Your task to perform on an android device: clear history in the chrome app Image 0: 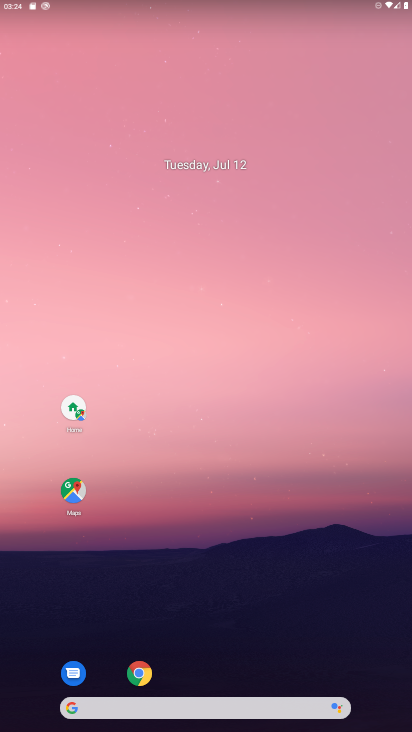
Step 0: drag from (201, 563) to (202, 320)
Your task to perform on an android device: clear history in the chrome app Image 1: 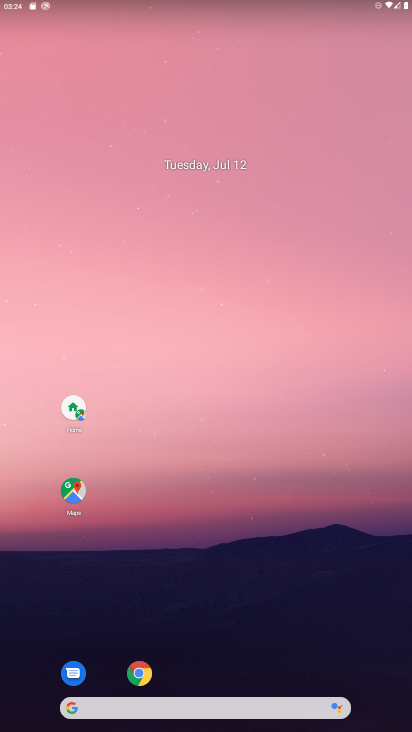
Step 1: drag from (218, 613) to (222, 125)
Your task to perform on an android device: clear history in the chrome app Image 2: 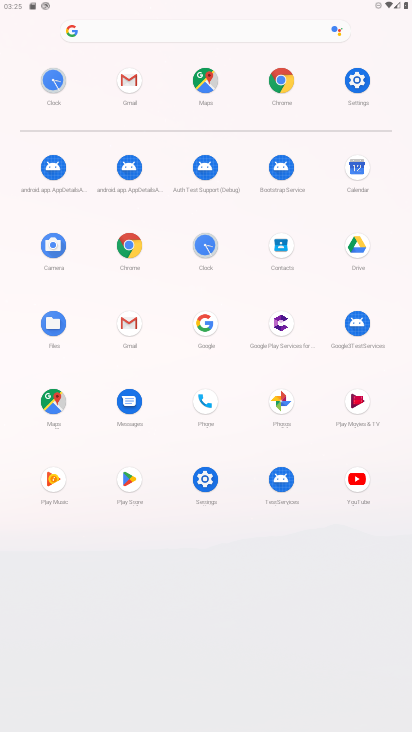
Step 2: click (290, 78)
Your task to perform on an android device: clear history in the chrome app Image 3: 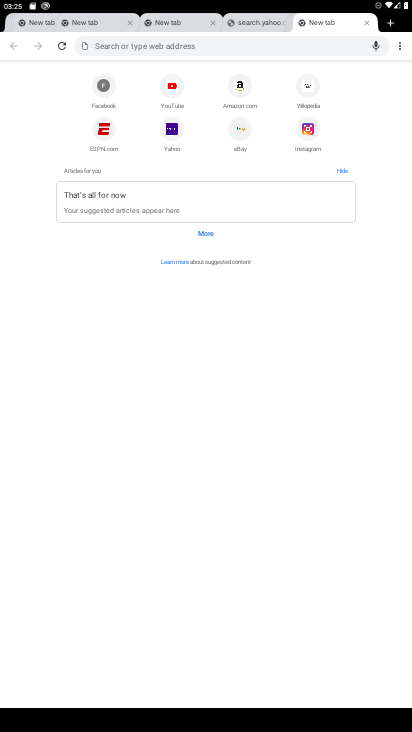
Step 3: click (408, 44)
Your task to perform on an android device: clear history in the chrome app Image 4: 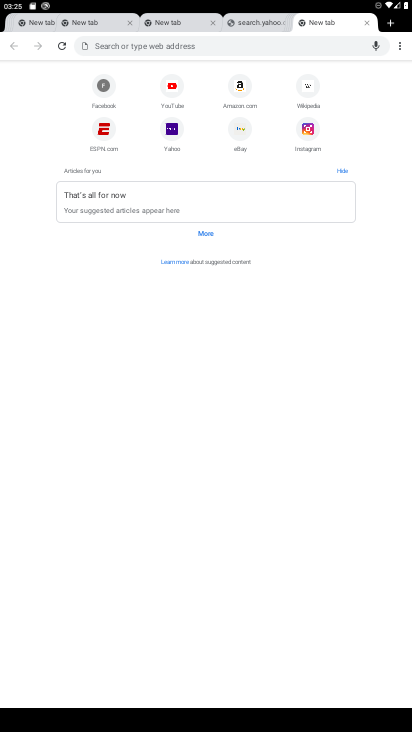
Step 4: click (408, 44)
Your task to perform on an android device: clear history in the chrome app Image 5: 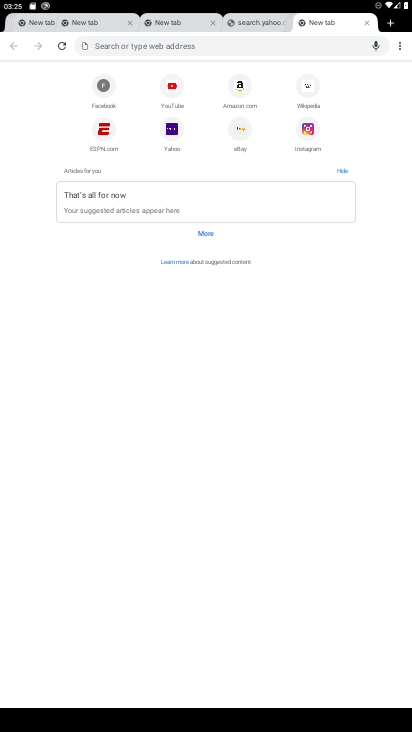
Step 5: click (399, 50)
Your task to perform on an android device: clear history in the chrome app Image 6: 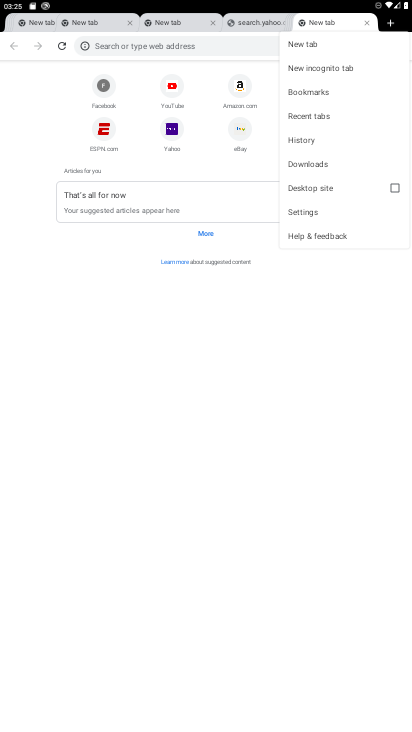
Step 6: click (327, 209)
Your task to perform on an android device: clear history in the chrome app Image 7: 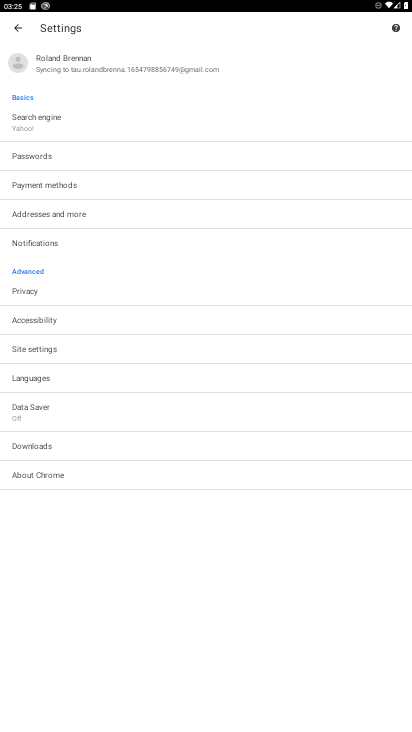
Step 7: click (10, 14)
Your task to perform on an android device: clear history in the chrome app Image 8: 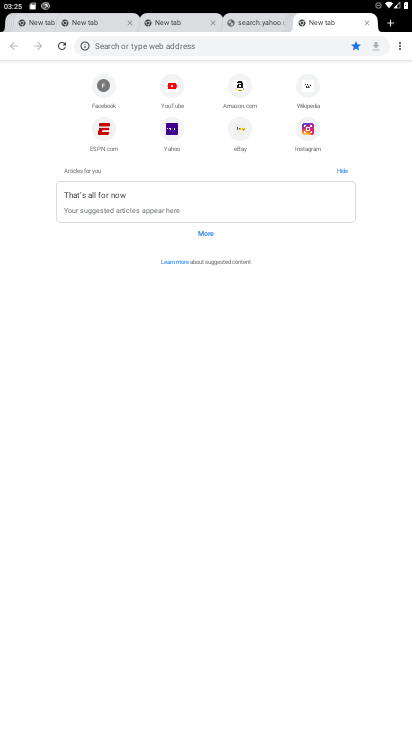
Step 8: click (395, 40)
Your task to perform on an android device: clear history in the chrome app Image 9: 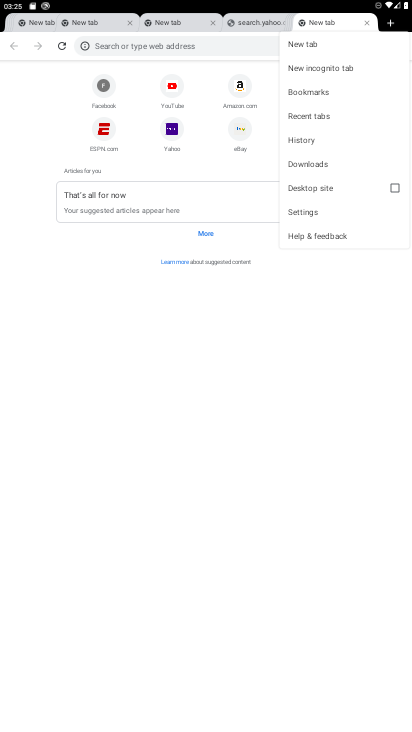
Step 9: click (318, 141)
Your task to perform on an android device: clear history in the chrome app Image 10: 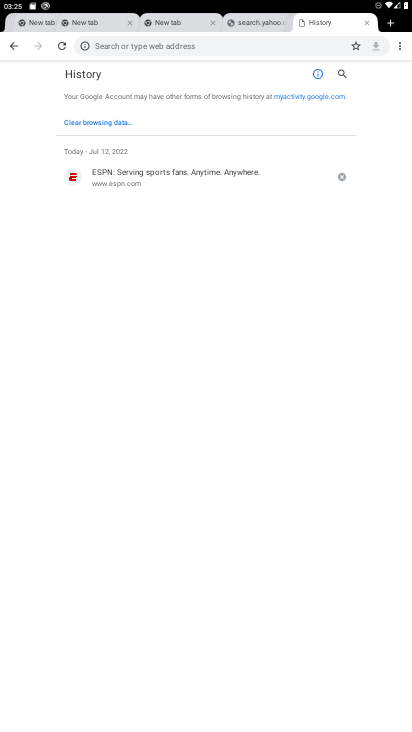
Step 10: drag from (108, 100) to (0, 232)
Your task to perform on an android device: clear history in the chrome app Image 11: 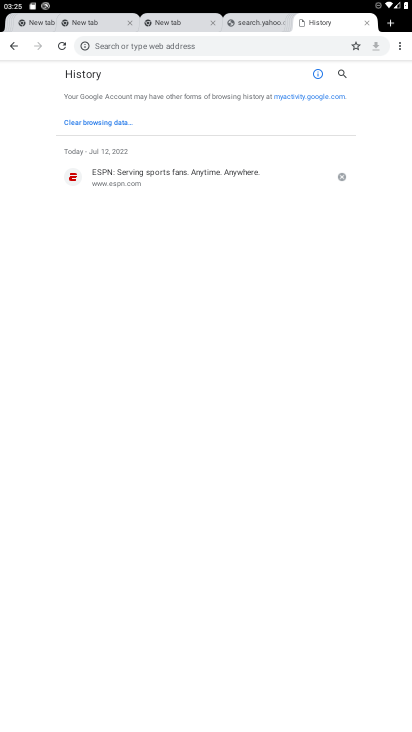
Step 11: click (75, 122)
Your task to perform on an android device: clear history in the chrome app Image 12: 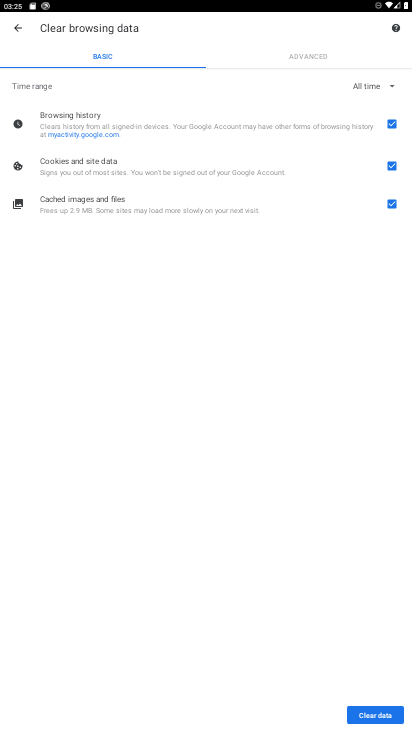
Step 12: click (371, 722)
Your task to perform on an android device: clear history in the chrome app Image 13: 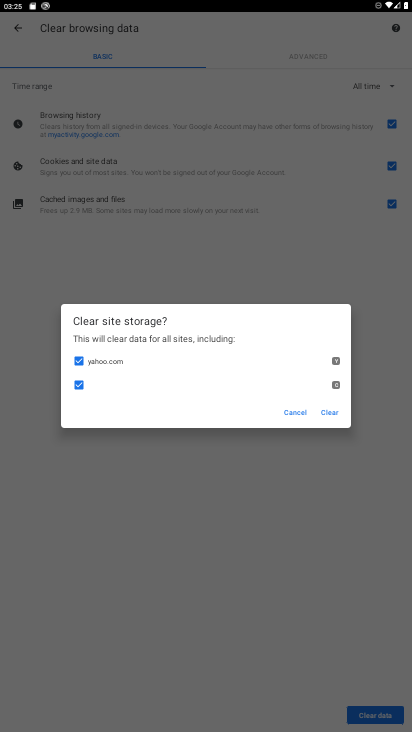
Step 13: click (329, 409)
Your task to perform on an android device: clear history in the chrome app Image 14: 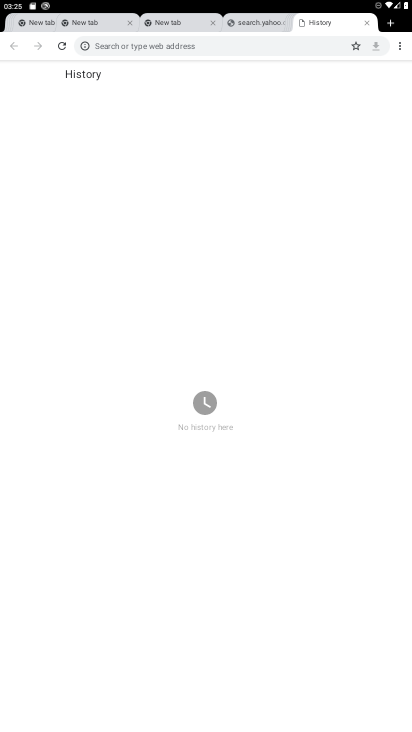
Step 14: task complete